Your task to perform on an android device: Add dell xps to the cart on costco, then select checkout. Image 0: 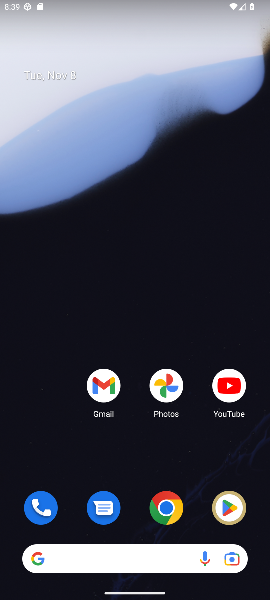
Step 0: click (162, 507)
Your task to perform on an android device: Add dell xps to the cart on costco, then select checkout. Image 1: 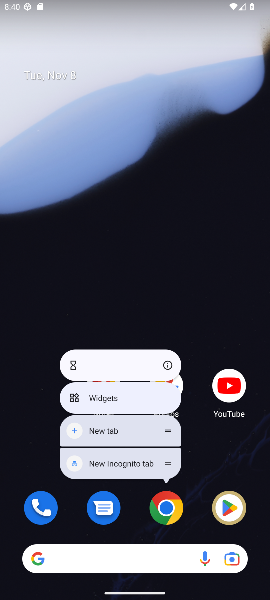
Step 1: click (163, 507)
Your task to perform on an android device: Add dell xps to the cart on costco, then select checkout. Image 2: 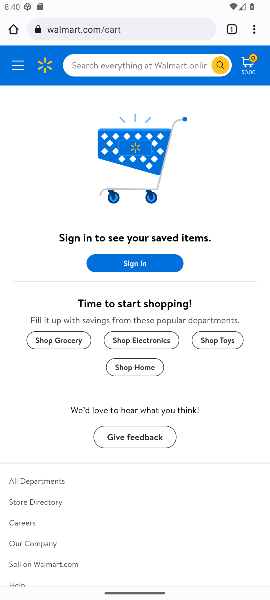
Step 2: click (72, 34)
Your task to perform on an android device: Add dell xps to the cart on costco, then select checkout. Image 3: 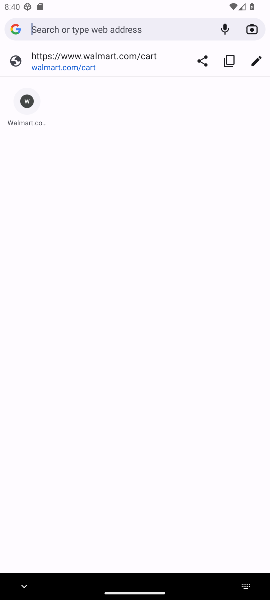
Step 3: type "costco"
Your task to perform on an android device: Add dell xps to the cart on costco, then select checkout. Image 4: 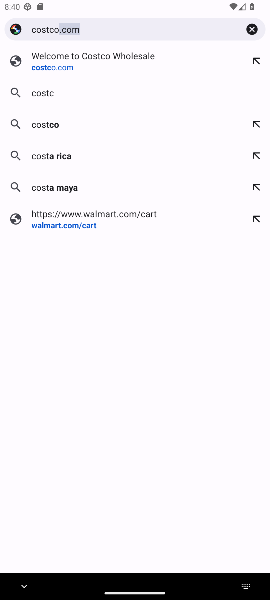
Step 4: type ""
Your task to perform on an android device: Add dell xps to the cart on costco, then select checkout. Image 5: 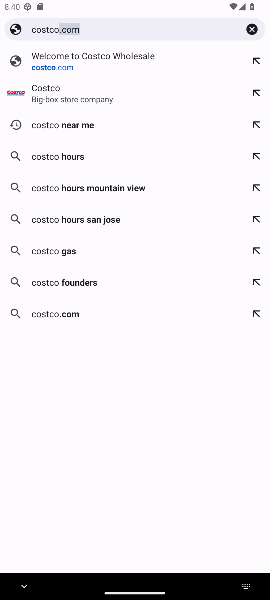
Step 5: click (61, 96)
Your task to perform on an android device: Add dell xps to the cart on costco, then select checkout. Image 6: 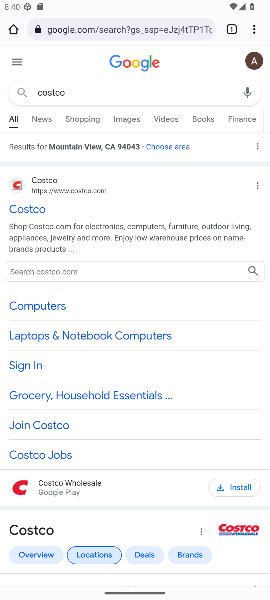
Step 6: click (28, 207)
Your task to perform on an android device: Add dell xps to the cart on costco, then select checkout. Image 7: 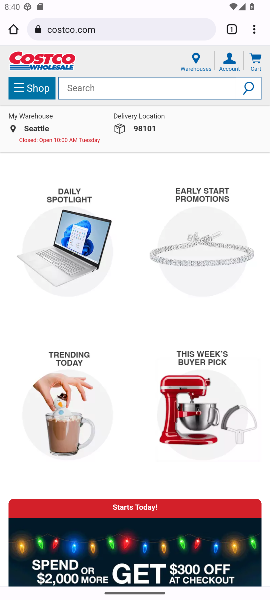
Step 7: click (174, 88)
Your task to perform on an android device: Add dell xps to the cart on costco, then select checkout. Image 8: 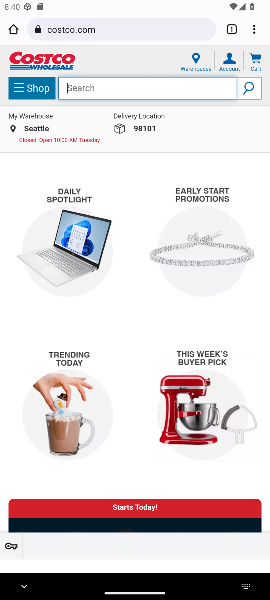
Step 8: type "dell xps"
Your task to perform on an android device: Add dell xps to the cart on costco, then select checkout. Image 9: 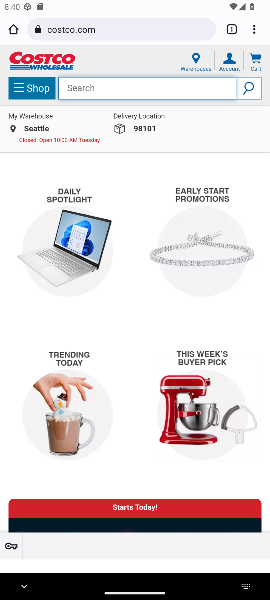
Step 9: type ""
Your task to perform on an android device: Add dell xps to the cart on costco, then select checkout. Image 10: 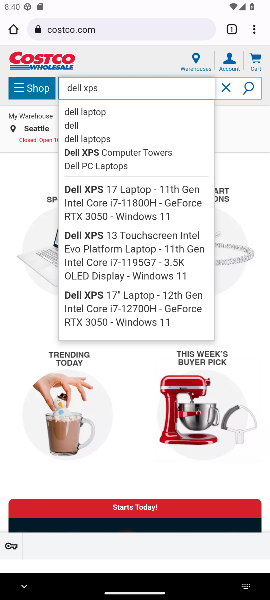
Step 10: click (75, 150)
Your task to perform on an android device: Add dell xps to the cart on costco, then select checkout. Image 11: 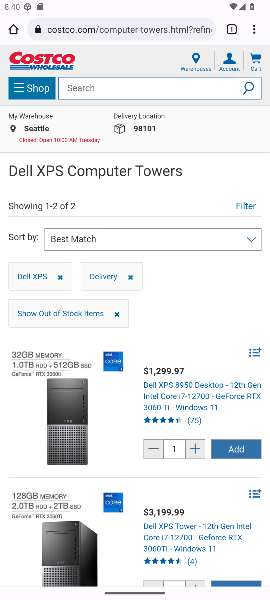
Step 11: click (163, 388)
Your task to perform on an android device: Add dell xps to the cart on costco, then select checkout. Image 12: 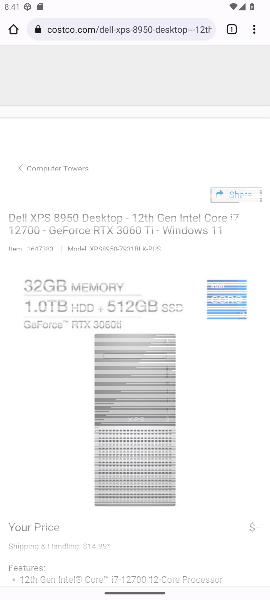
Step 12: drag from (185, 424) to (235, 136)
Your task to perform on an android device: Add dell xps to the cart on costco, then select checkout. Image 13: 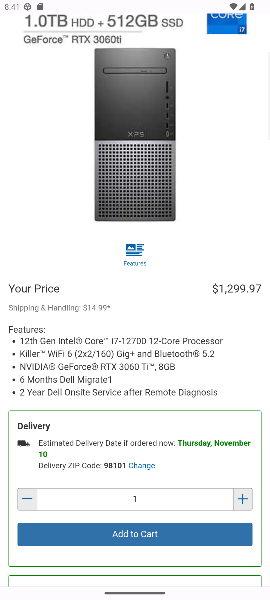
Step 13: click (133, 527)
Your task to perform on an android device: Add dell xps to the cart on costco, then select checkout. Image 14: 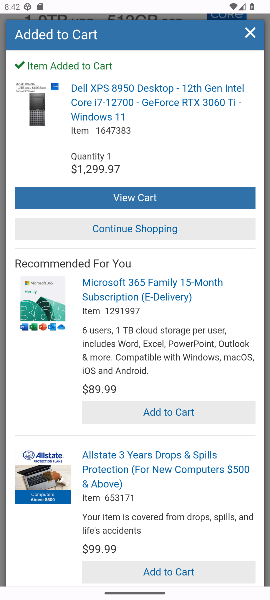
Step 14: click (131, 199)
Your task to perform on an android device: Add dell xps to the cart on costco, then select checkout. Image 15: 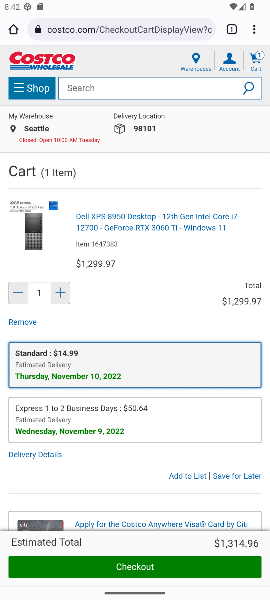
Step 15: click (131, 569)
Your task to perform on an android device: Add dell xps to the cart on costco, then select checkout. Image 16: 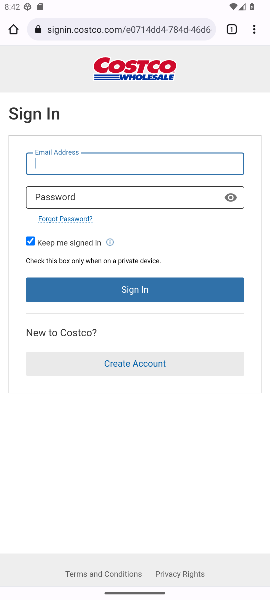
Step 16: task complete